Your task to perform on an android device: toggle sleep mode Image 0: 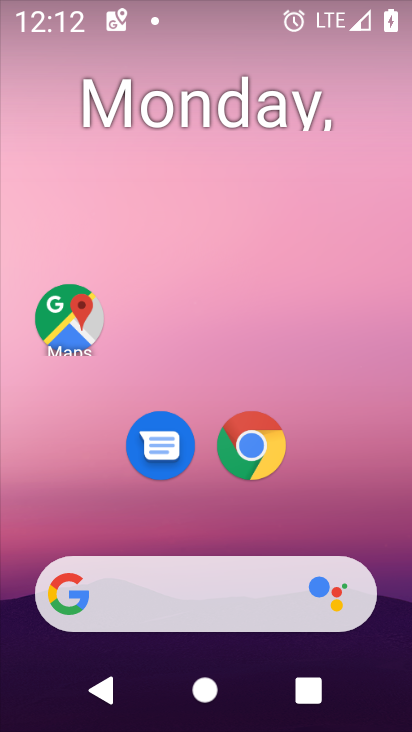
Step 0: drag from (199, 525) to (294, 26)
Your task to perform on an android device: toggle sleep mode Image 1: 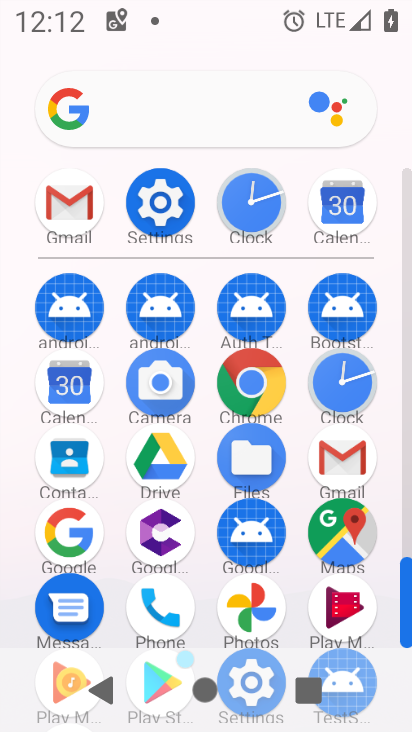
Step 1: click (179, 223)
Your task to perform on an android device: toggle sleep mode Image 2: 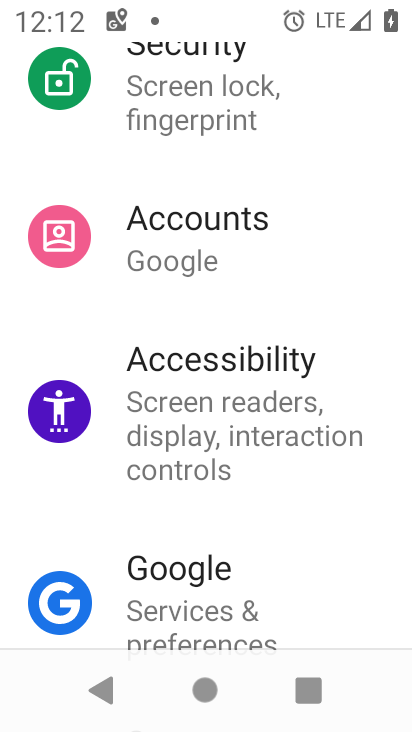
Step 2: drag from (229, 282) to (361, 723)
Your task to perform on an android device: toggle sleep mode Image 3: 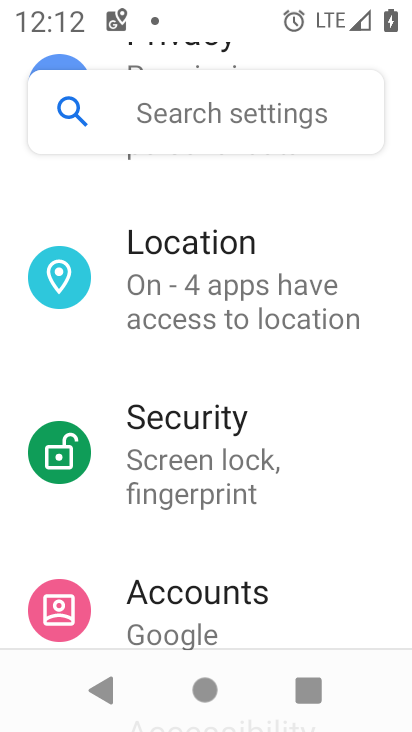
Step 3: drag from (209, 276) to (401, 2)
Your task to perform on an android device: toggle sleep mode Image 4: 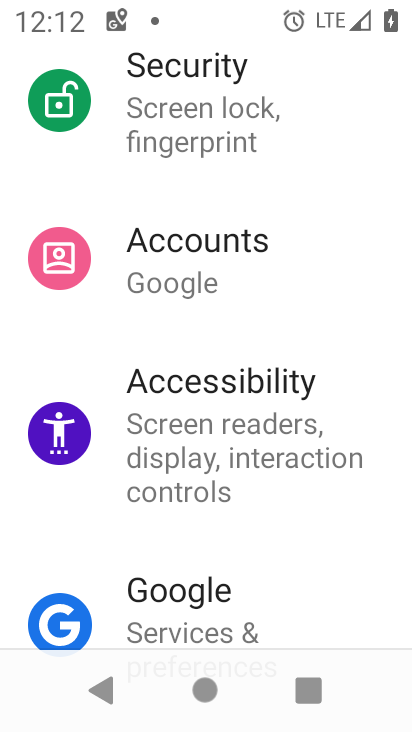
Step 4: drag from (261, 195) to (322, 616)
Your task to perform on an android device: toggle sleep mode Image 5: 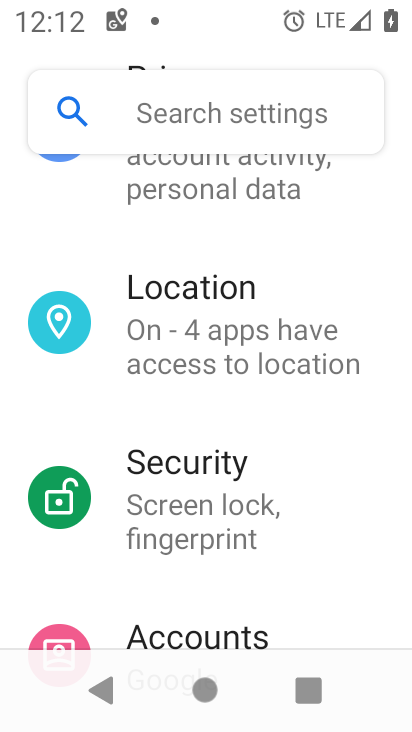
Step 5: drag from (215, 306) to (344, 704)
Your task to perform on an android device: toggle sleep mode Image 6: 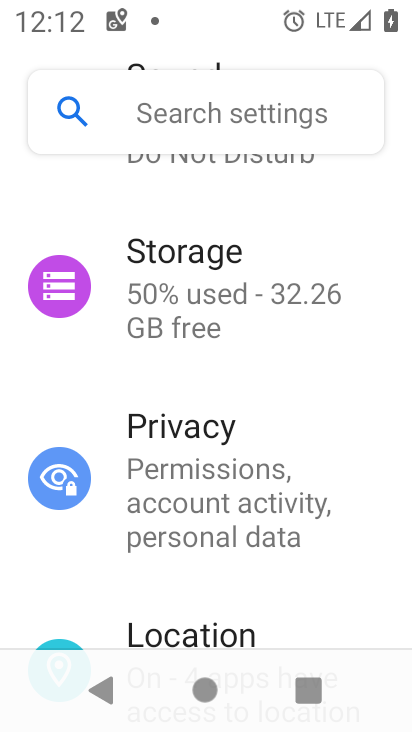
Step 6: drag from (249, 281) to (331, 718)
Your task to perform on an android device: toggle sleep mode Image 7: 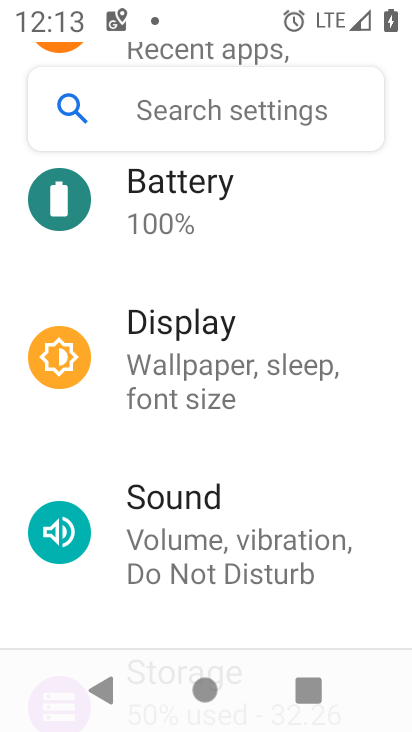
Step 7: click (208, 361)
Your task to perform on an android device: toggle sleep mode Image 8: 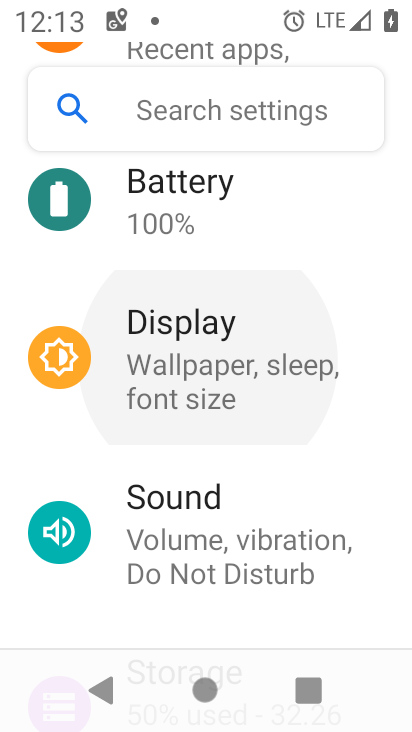
Step 8: click (208, 361)
Your task to perform on an android device: toggle sleep mode Image 9: 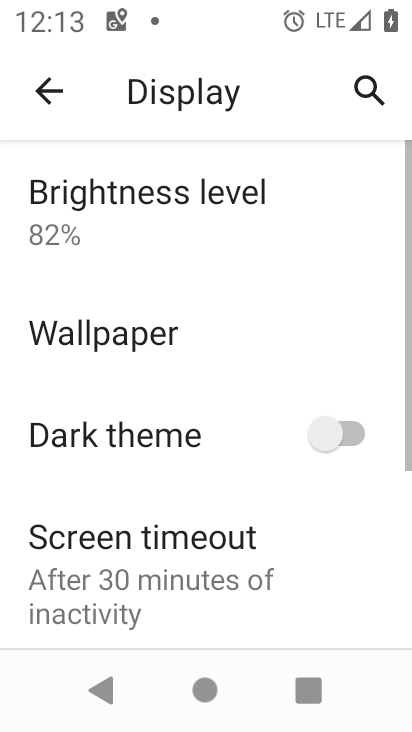
Step 9: drag from (275, 314) to (284, 276)
Your task to perform on an android device: toggle sleep mode Image 10: 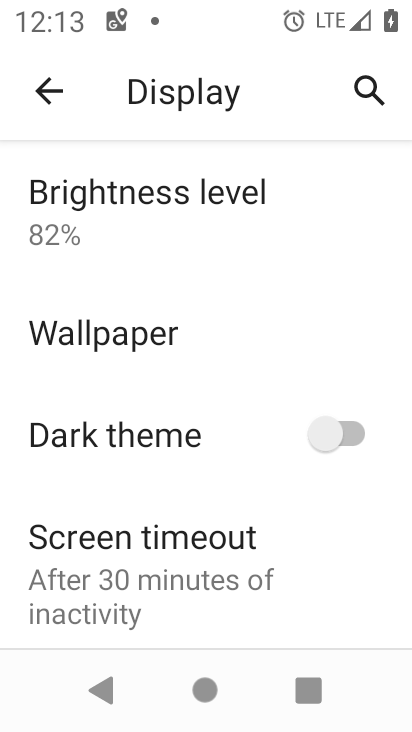
Step 10: click (197, 563)
Your task to perform on an android device: toggle sleep mode Image 11: 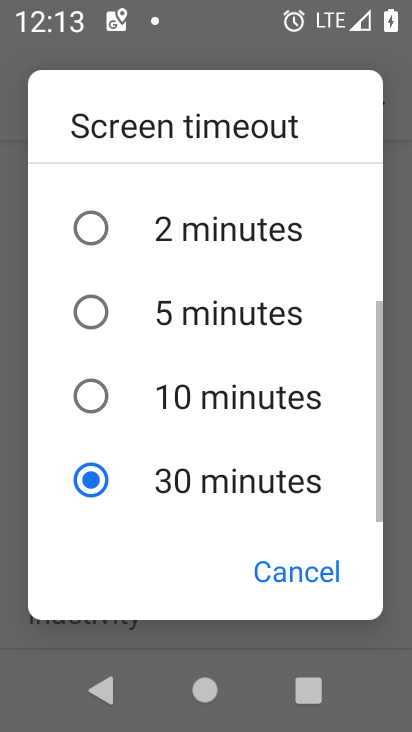
Step 11: task complete